Your task to perform on an android device: See recent photos Image 0: 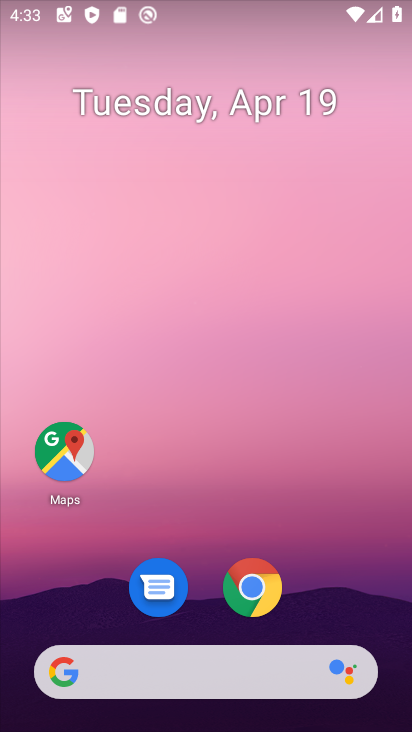
Step 0: drag from (345, 538) to (323, 13)
Your task to perform on an android device: See recent photos Image 1: 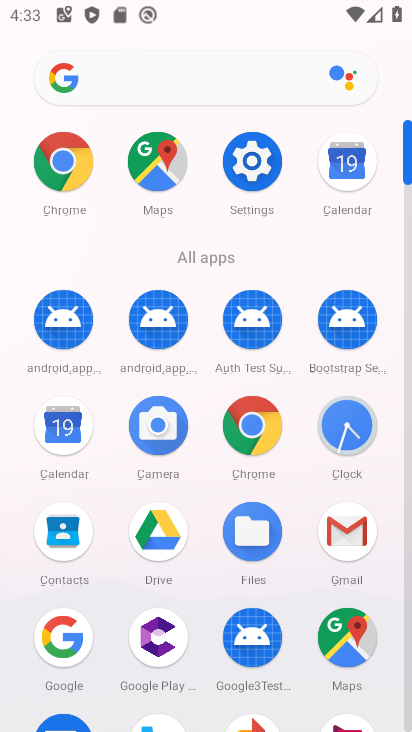
Step 1: drag from (18, 564) to (41, 201)
Your task to perform on an android device: See recent photos Image 2: 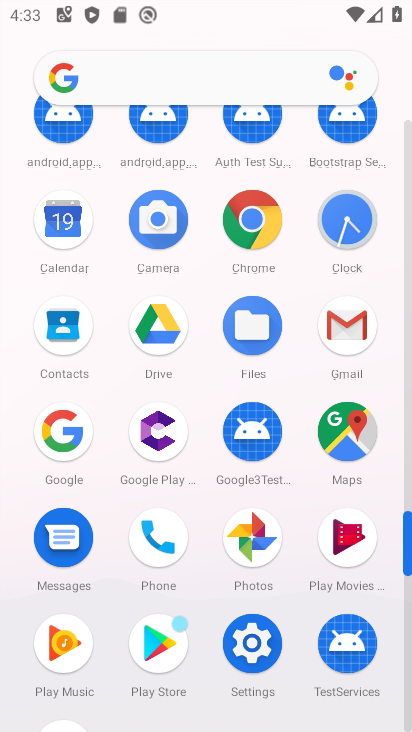
Step 2: click (248, 534)
Your task to perform on an android device: See recent photos Image 3: 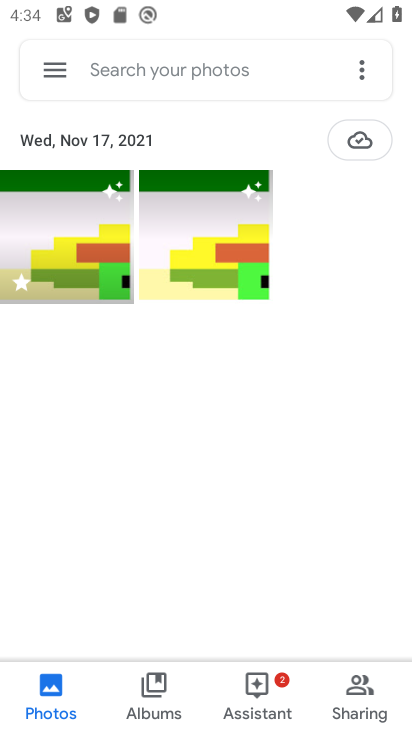
Step 3: task complete